Your task to perform on an android device: Open display settings Image 0: 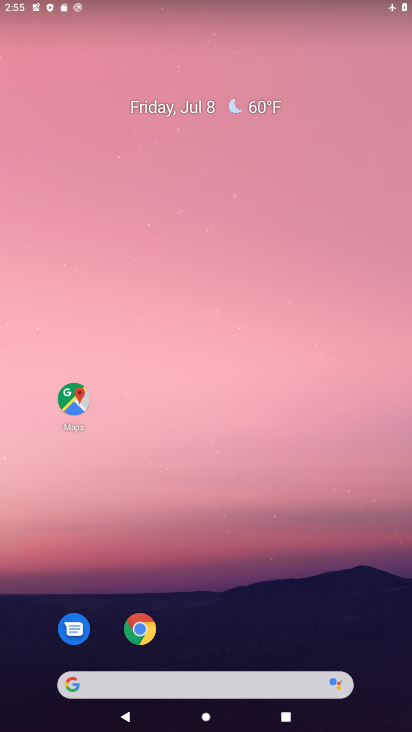
Step 0: drag from (197, 631) to (204, 222)
Your task to perform on an android device: Open display settings Image 1: 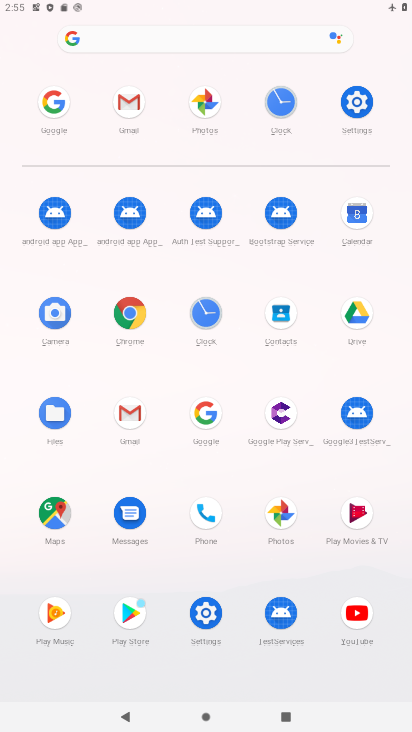
Step 1: click (354, 93)
Your task to perform on an android device: Open display settings Image 2: 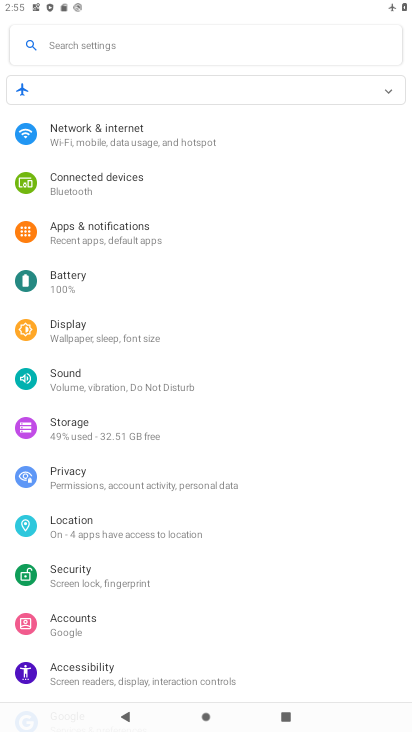
Step 2: click (115, 343)
Your task to perform on an android device: Open display settings Image 3: 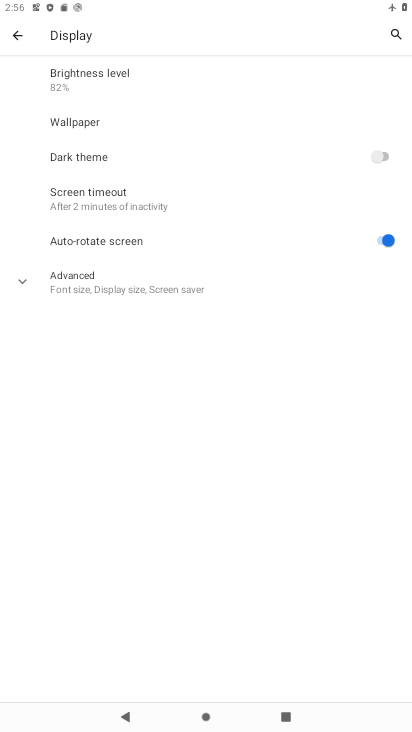
Step 3: task complete